Your task to perform on an android device: refresh tabs in the chrome app Image 0: 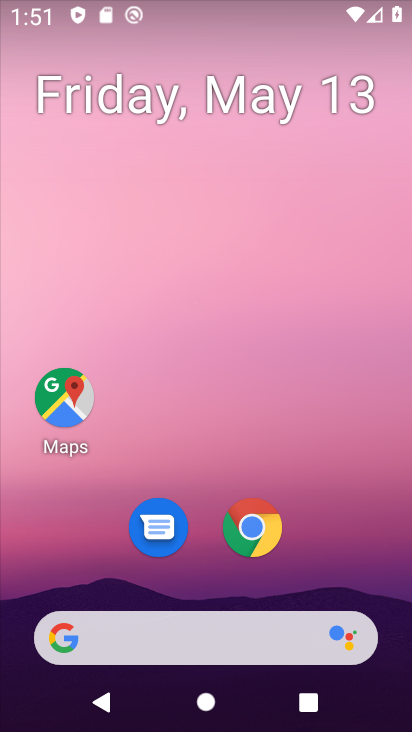
Step 0: click (254, 527)
Your task to perform on an android device: refresh tabs in the chrome app Image 1: 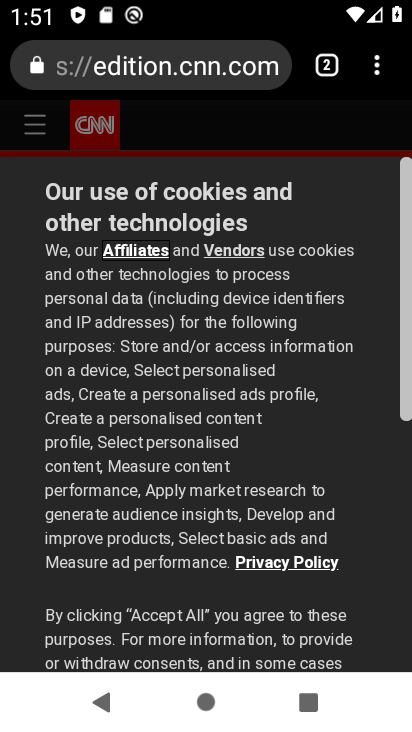
Step 1: click (385, 68)
Your task to perform on an android device: refresh tabs in the chrome app Image 2: 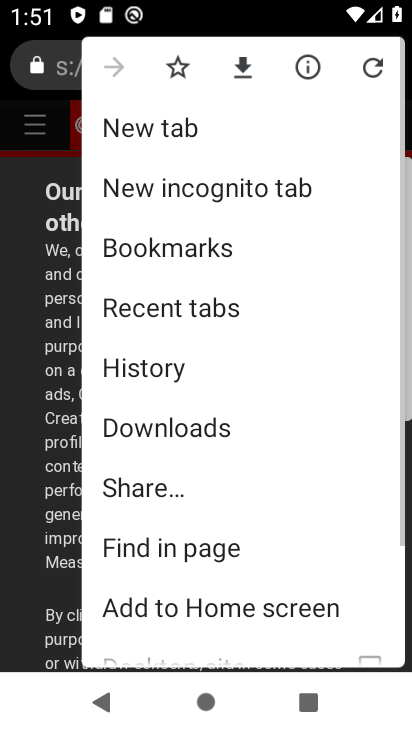
Step 2: click (368, 82)
Your task to perform on an android device: refresh tabs in the chrome app Image 3: 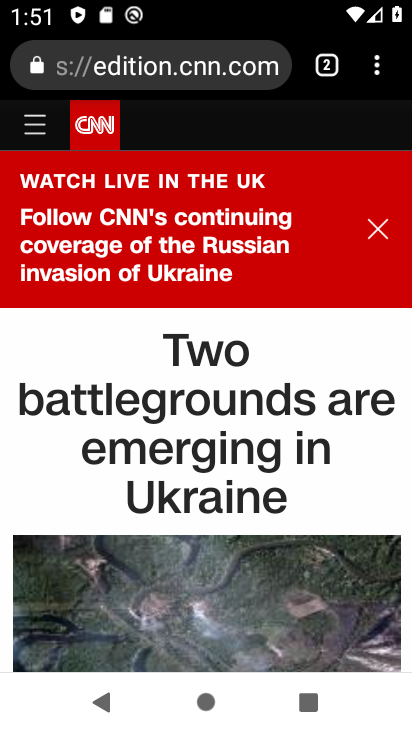
Step 3: task complete